Your task to perform on an android device: Show the shopping cart on ebay.com. Image 0: 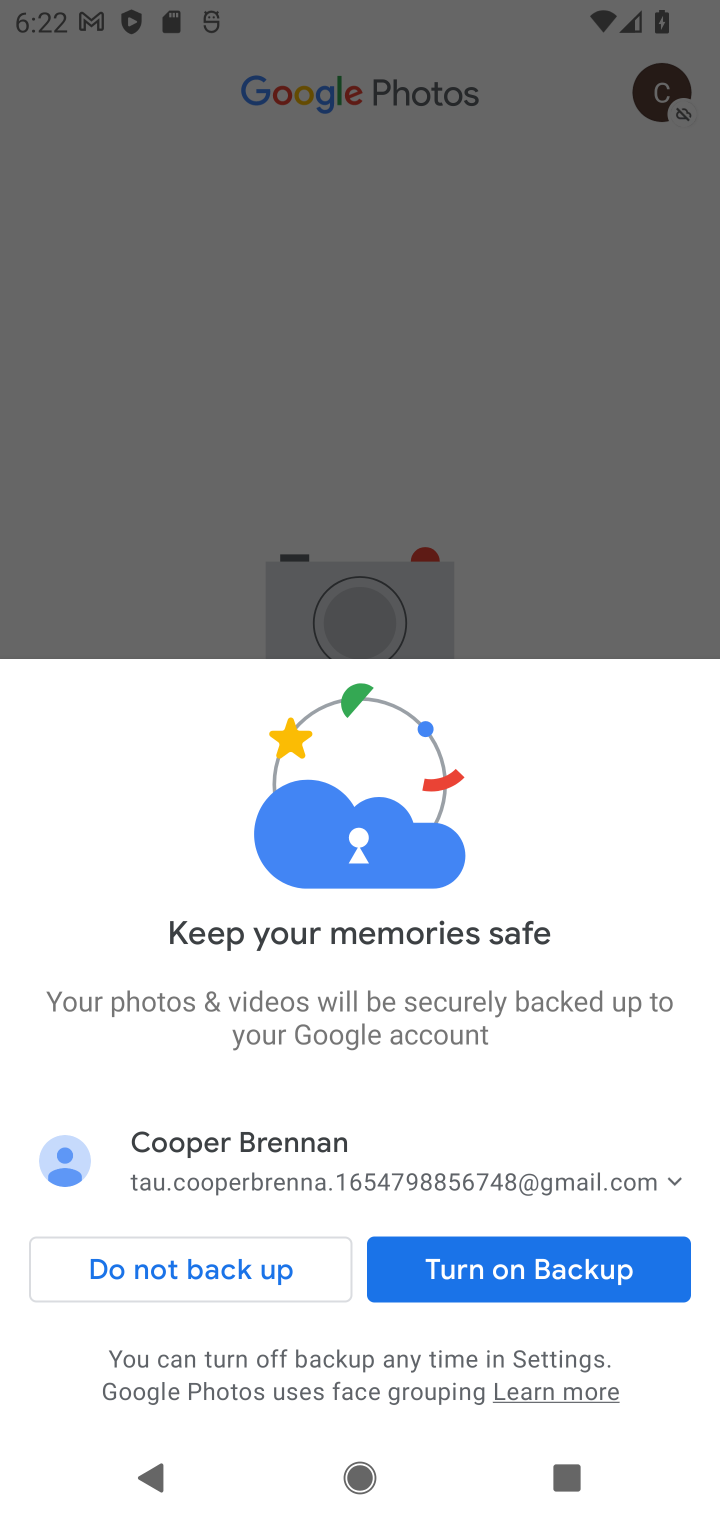
Step 0: press home button
Your task to perform on an android device: Show the shopping cart on ebay.com. Image 1: 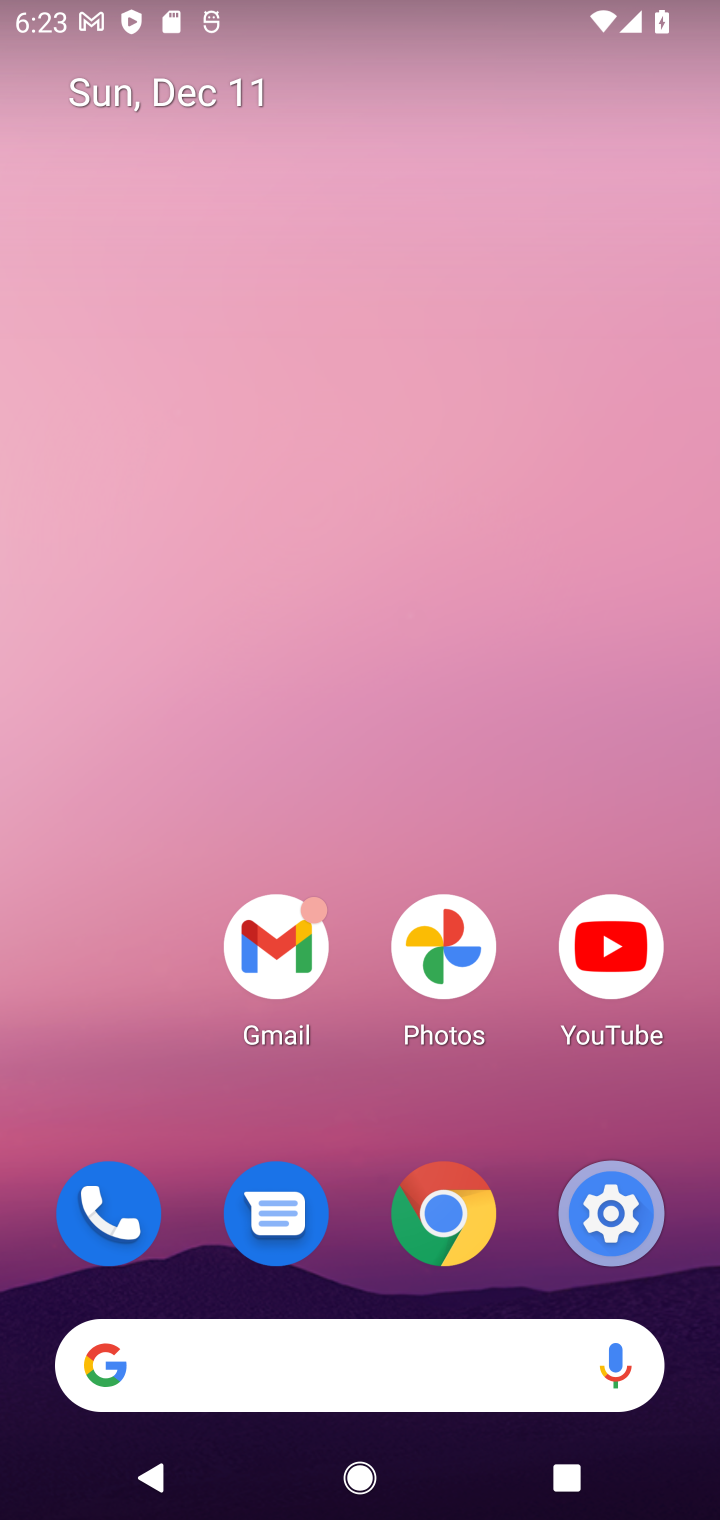
Step 1: click (352, 1351)
Your task to perform on an android device: Show the shopping cart on ebay.com. Image 2: 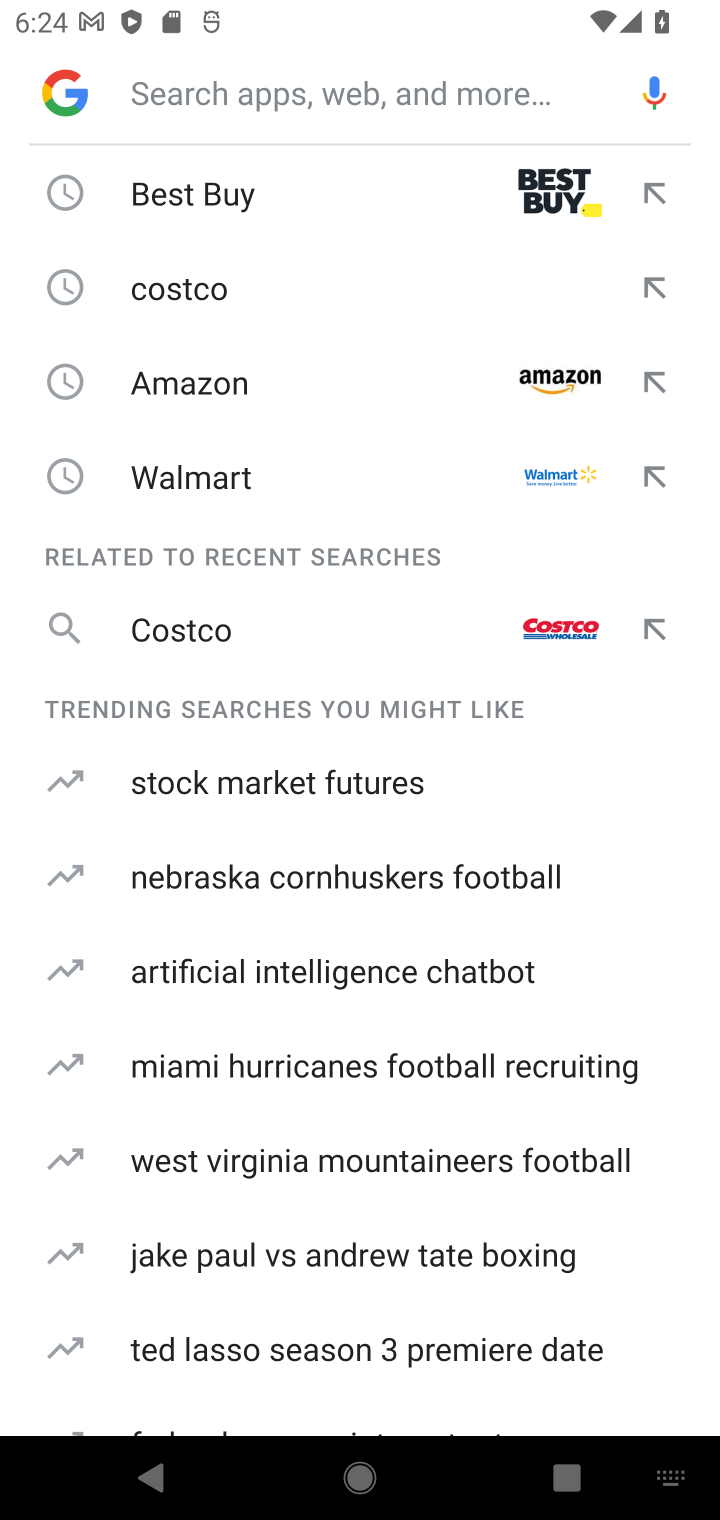
Step 2: type "ebay"
Your task to perform on an android device: Show the shopping cart on ebay.com. Image 3: 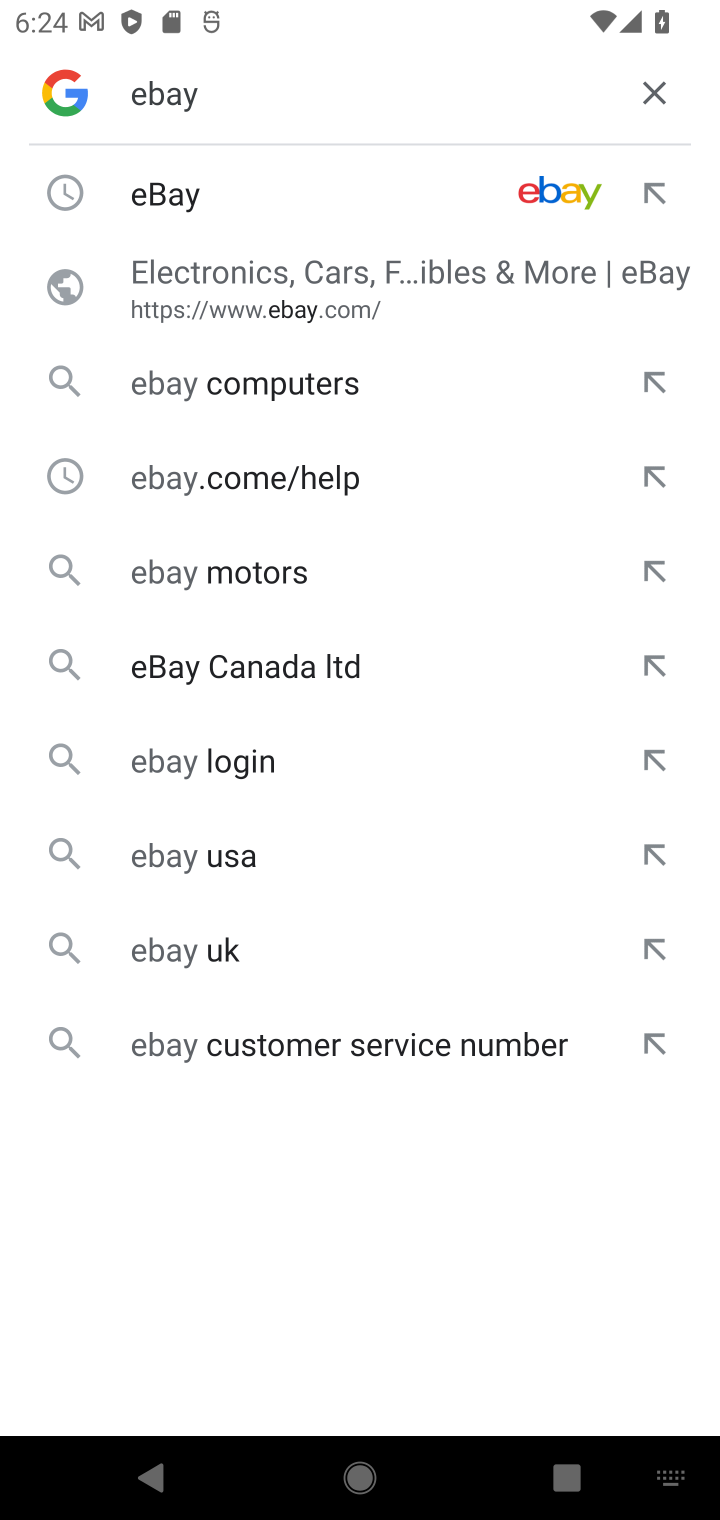
Step 3: click (155, 168)
Your task to perform on an android device: Show the shopping cart on ebay.com. Image 4: 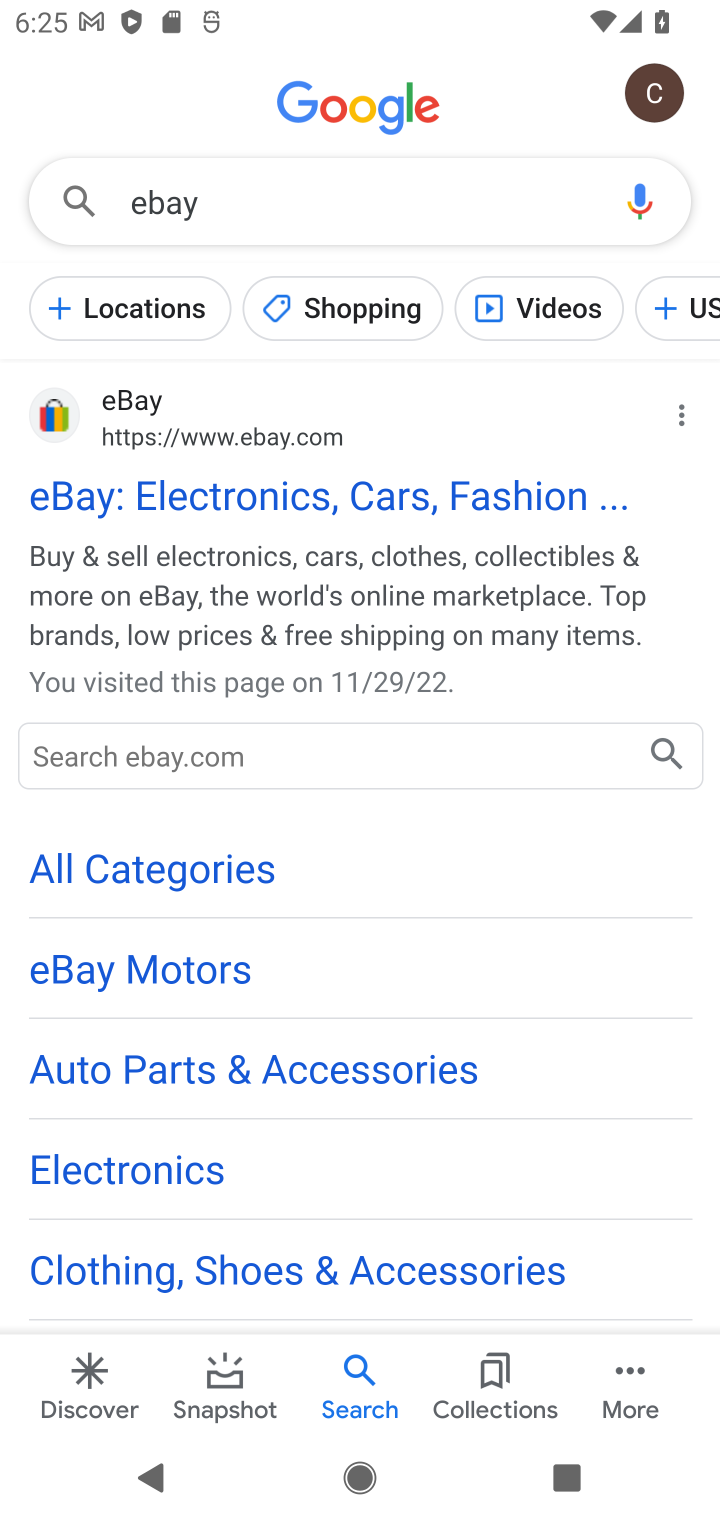
Step 4: click (90, 481)
Your task to perform on an android device: Show the shopping cart on ebay.com. Image 5: 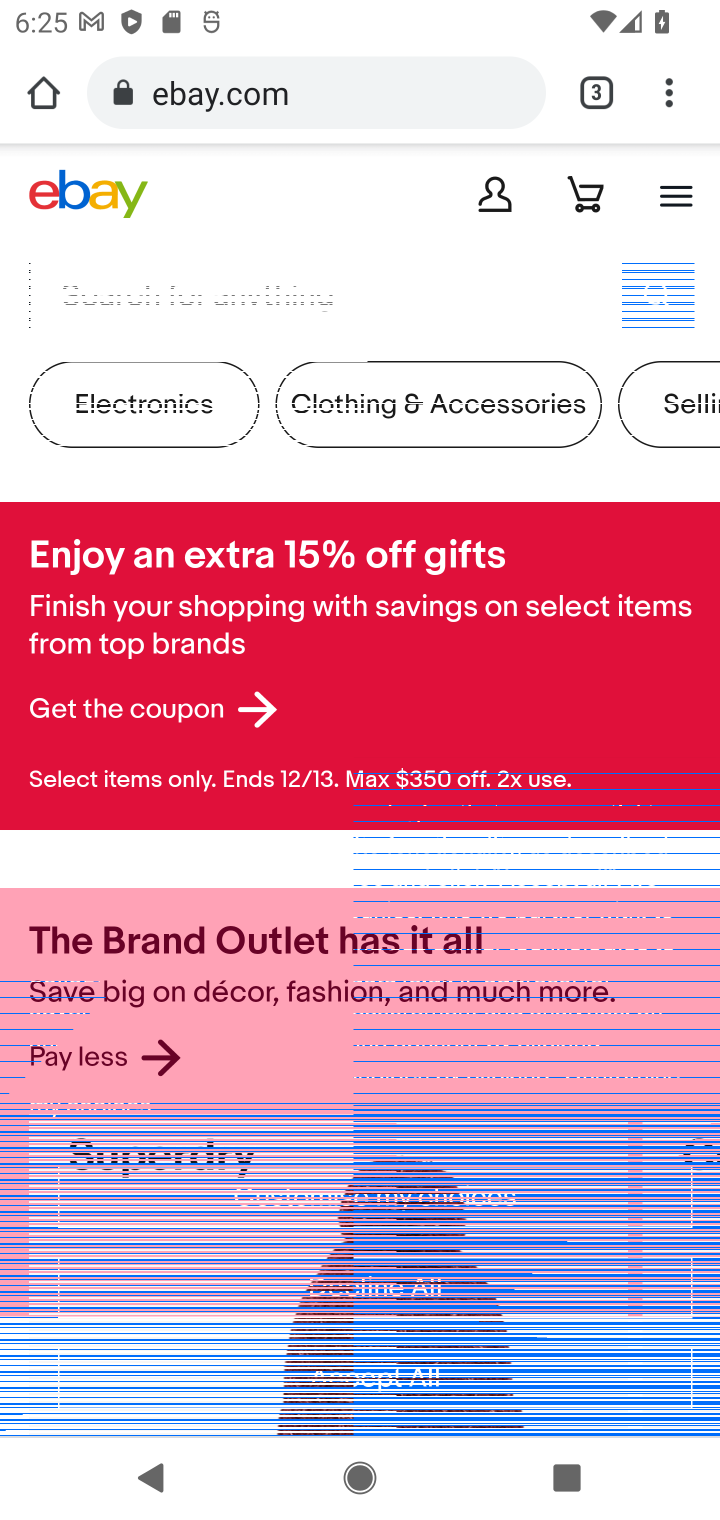
Step 5: drag from (222, 503) to (445, 1036)
Your task to perform on an android device: Show the shopping cart on ebay.com. Image 6: 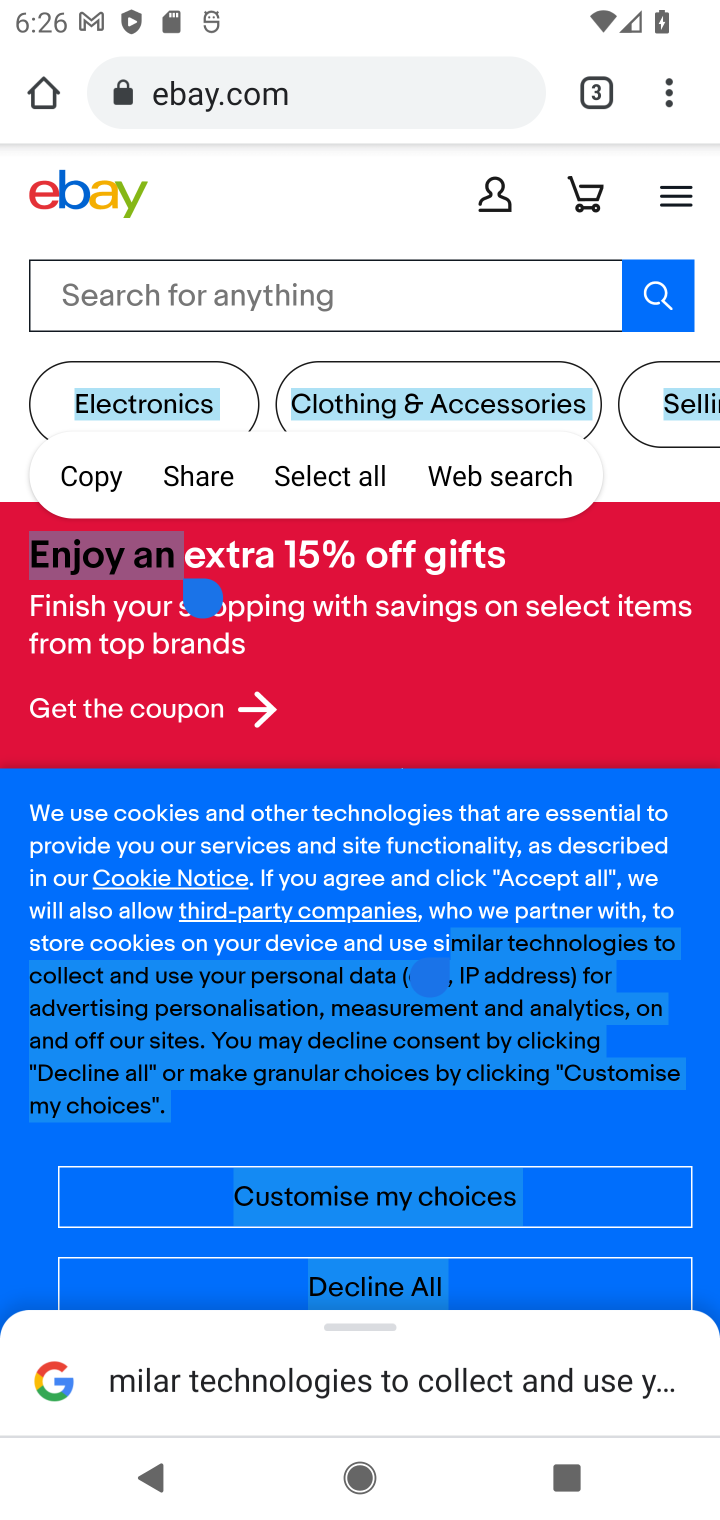
Step 6: click (123, 278)
Your task to perform on an android device: Show the shopping cart on ebay.com. Image 7: 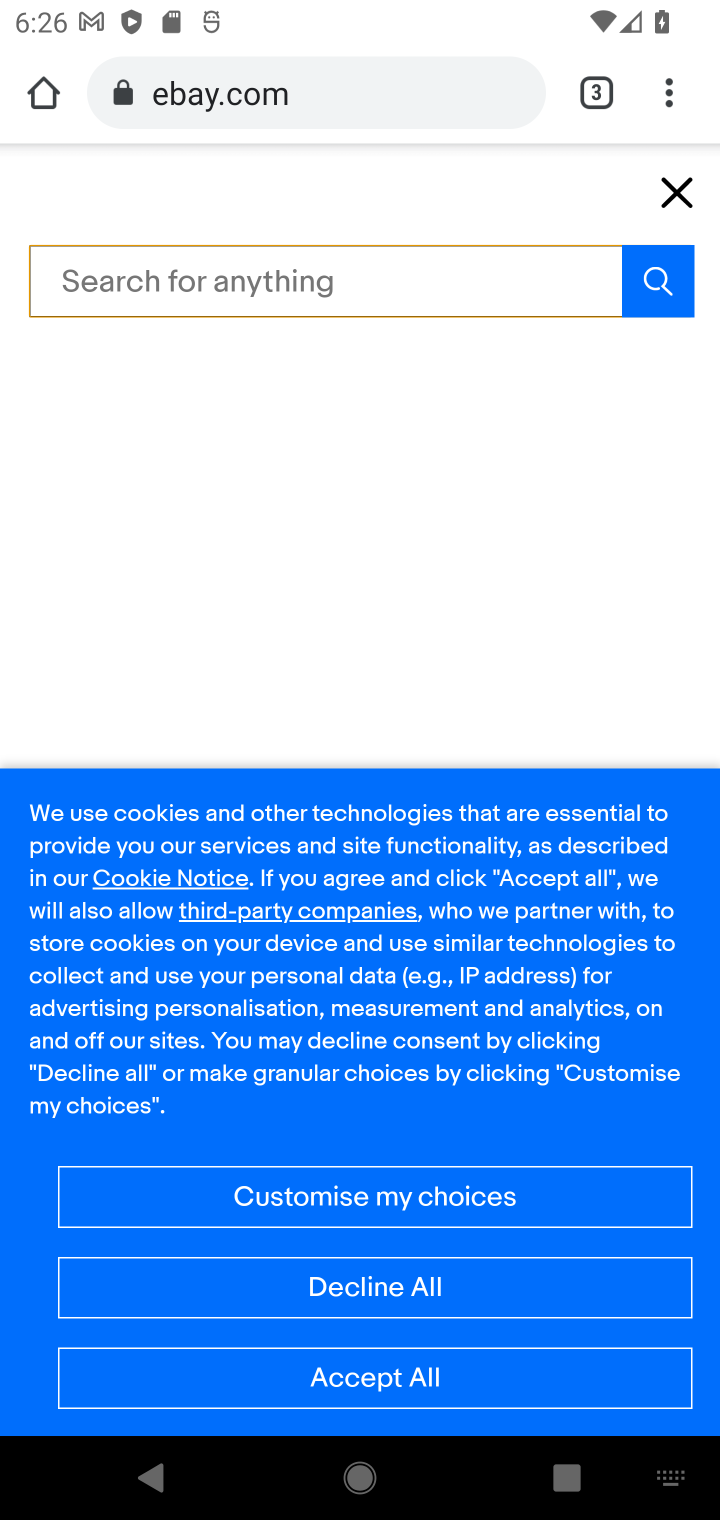
Step 7: click (690, 180)
Your task to perform on an android device: Show the shopping cart on ebay.com. Image 8: 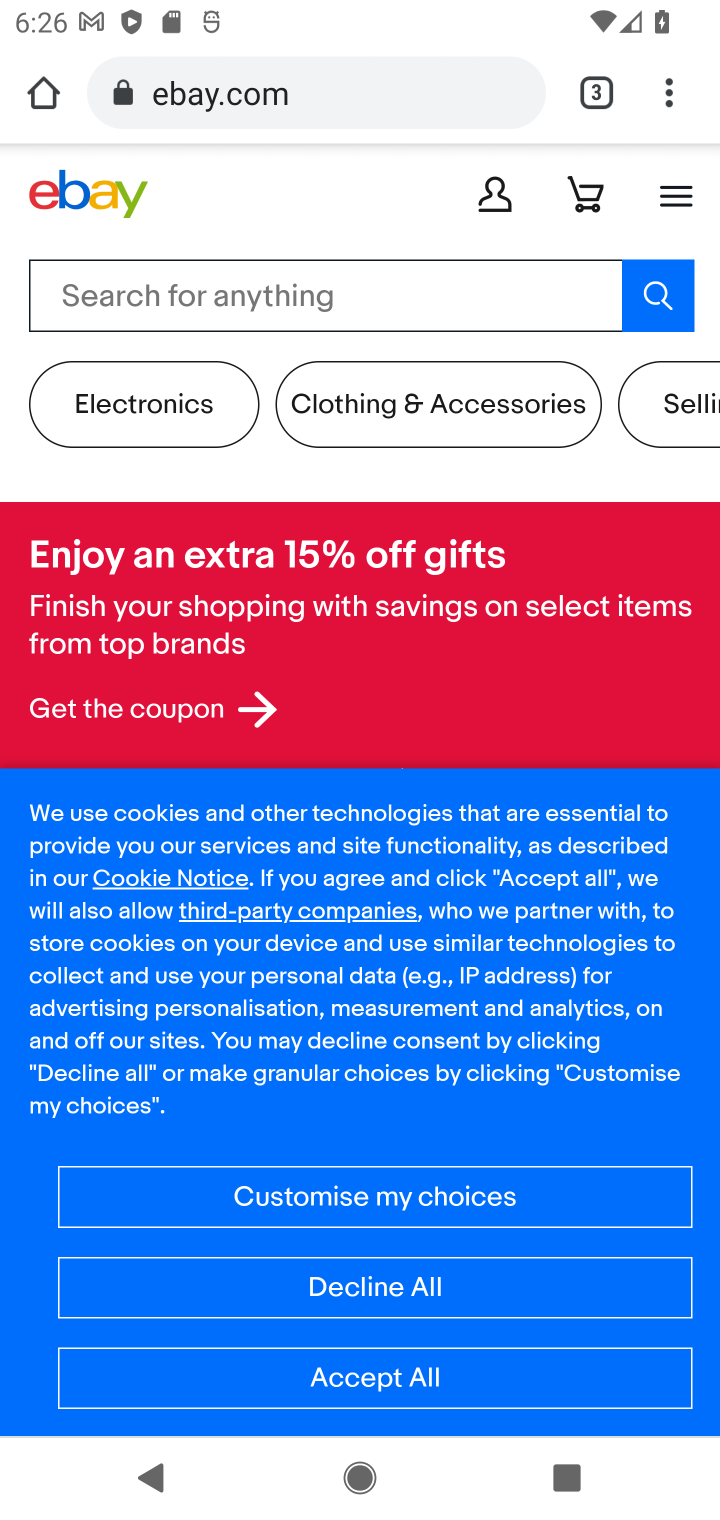
Step 8: click (588, 196)
Your task to perform on an android device: Show the shopping cart on ebay.com. Image 9: 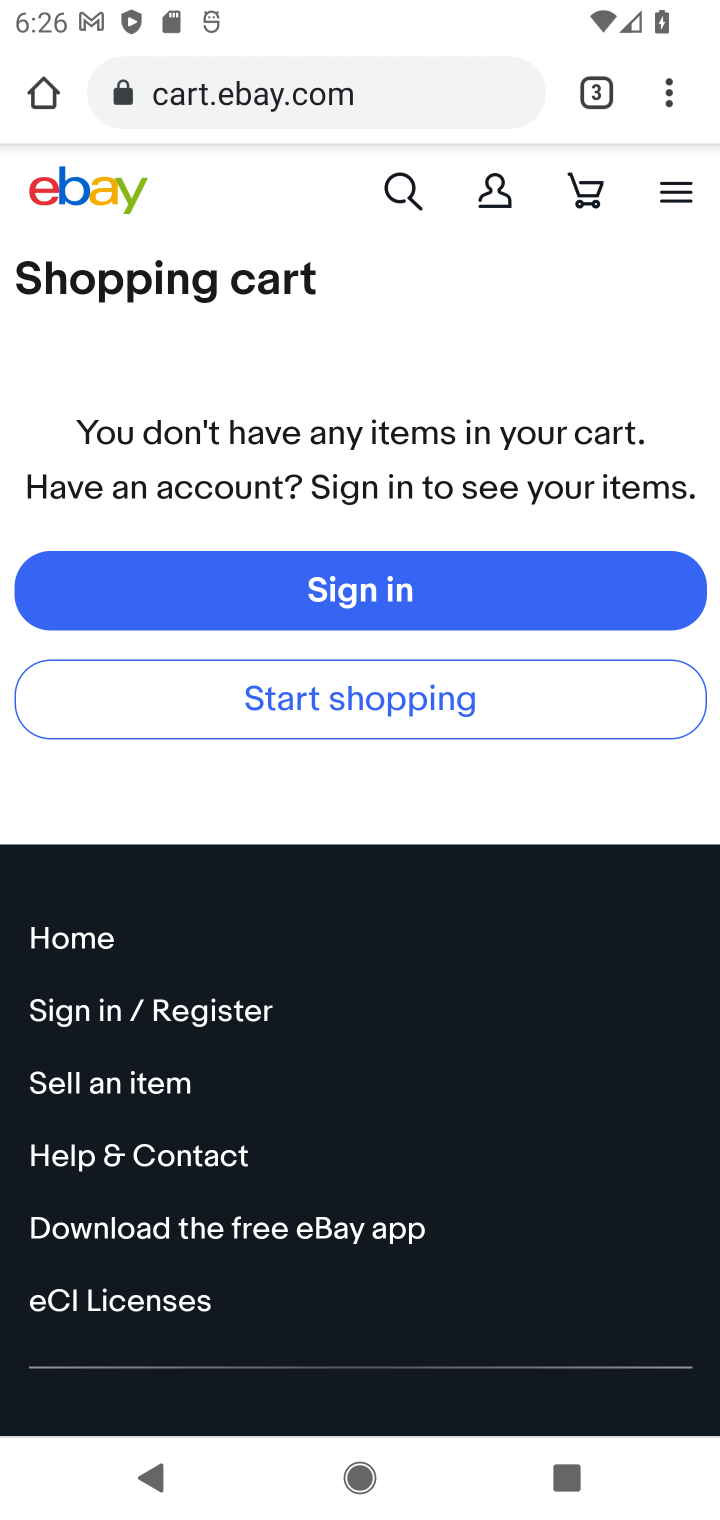
Step 9: task complete